Your task to perform on an android device: See recent photos Image 0: 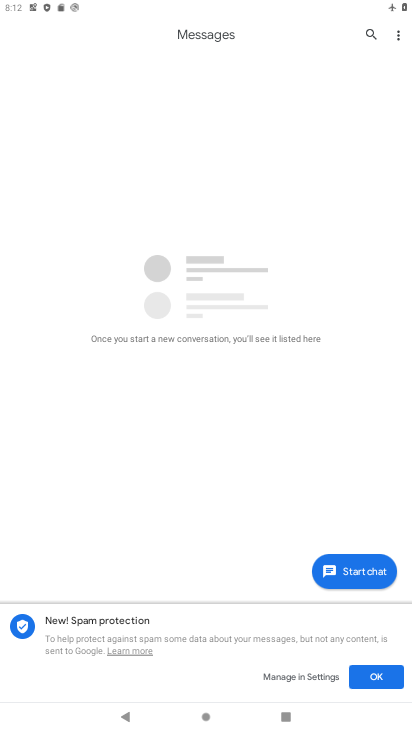
Step 0: press home button
Your task to perform on an android device: See recent photos Image 1: 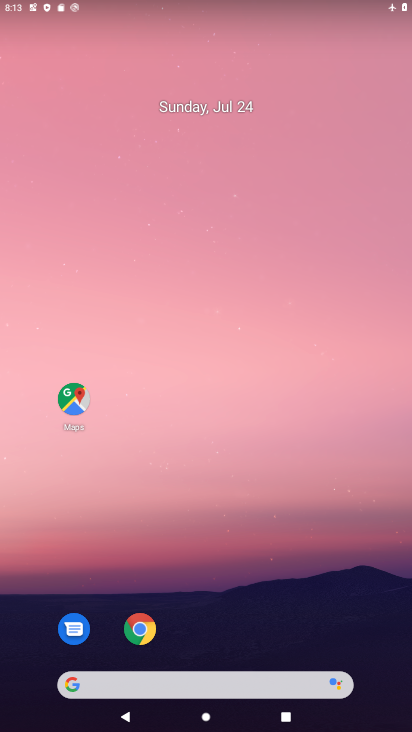
Step 1: drag from (247, 520) to (293, 10)
Your task to perform on an android device: See recent photos Image 2: 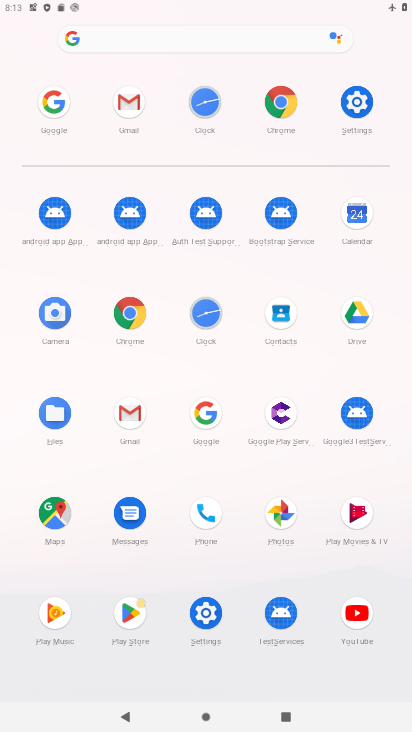
Step 2: click (267, 516)
Your task to perform on an android device: See recent photos Image 3: 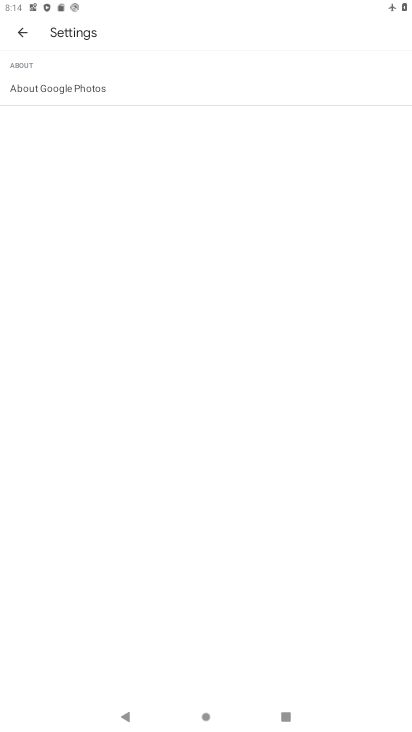
Step 3: click (21, 38)
Your task to perform on an android device: See recent photos Image 4: 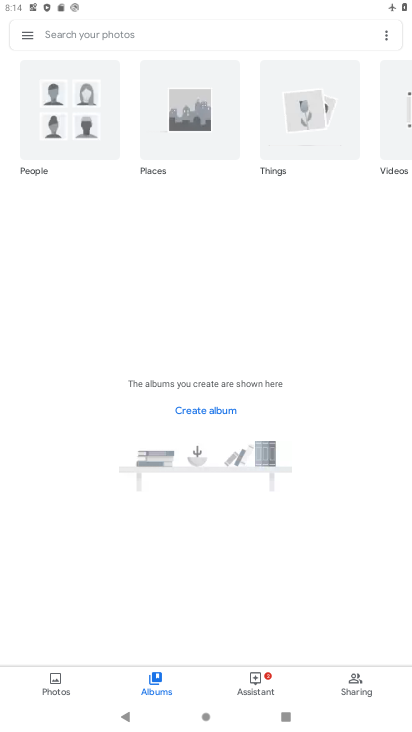
Step 4: click (57, 685)
Your task to perform on an android device: See recent photos Image 5: 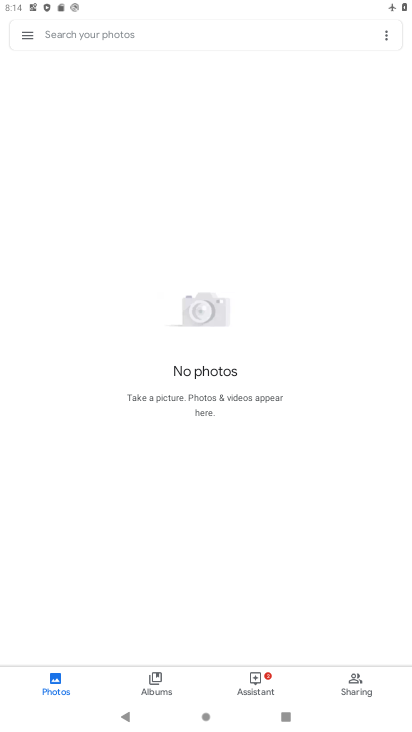
Step 5: task complete